Your task to perform on an android device: Add logitech g933 to the cart on walmart Image 0: 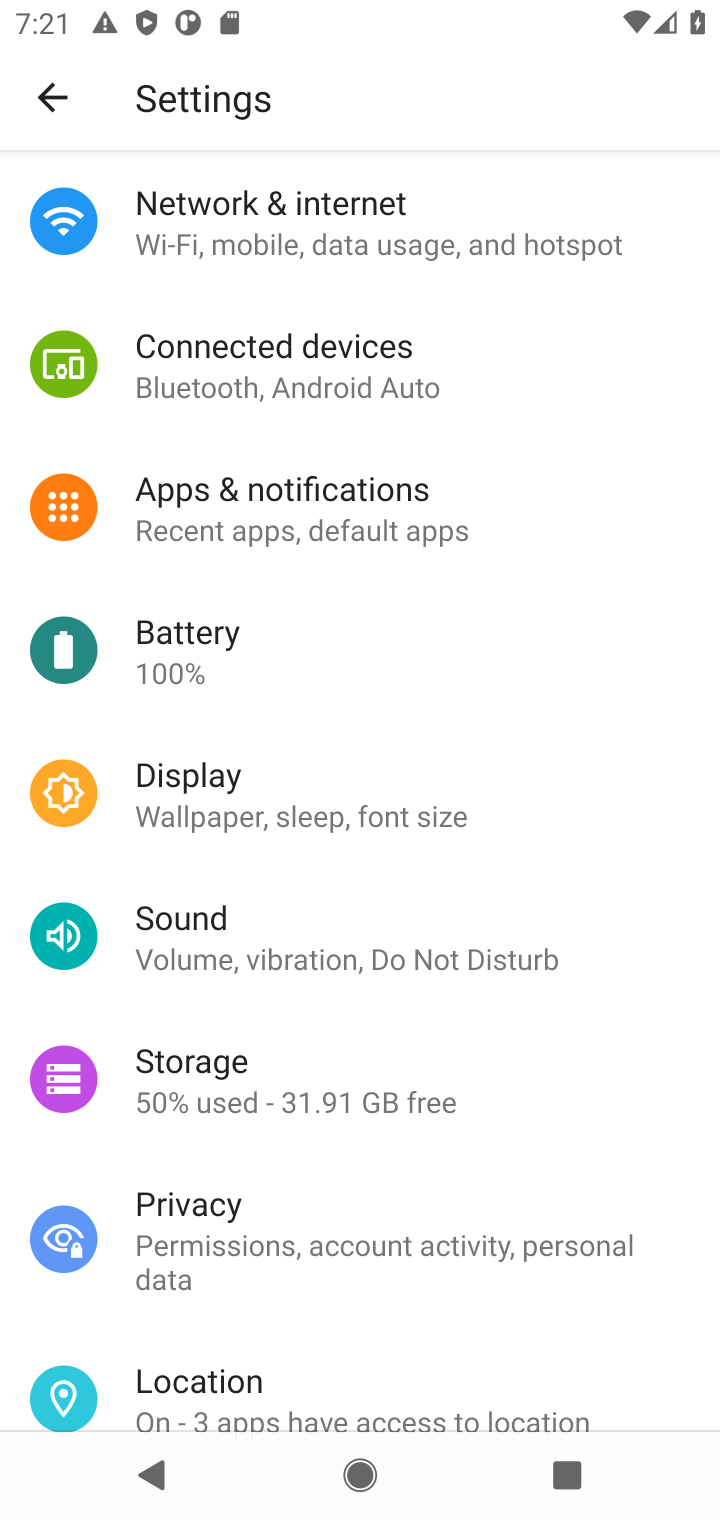
Step 0: press home button
Your task to perform on an android device: Add logitech g933 to the cart on walmart Image 1: 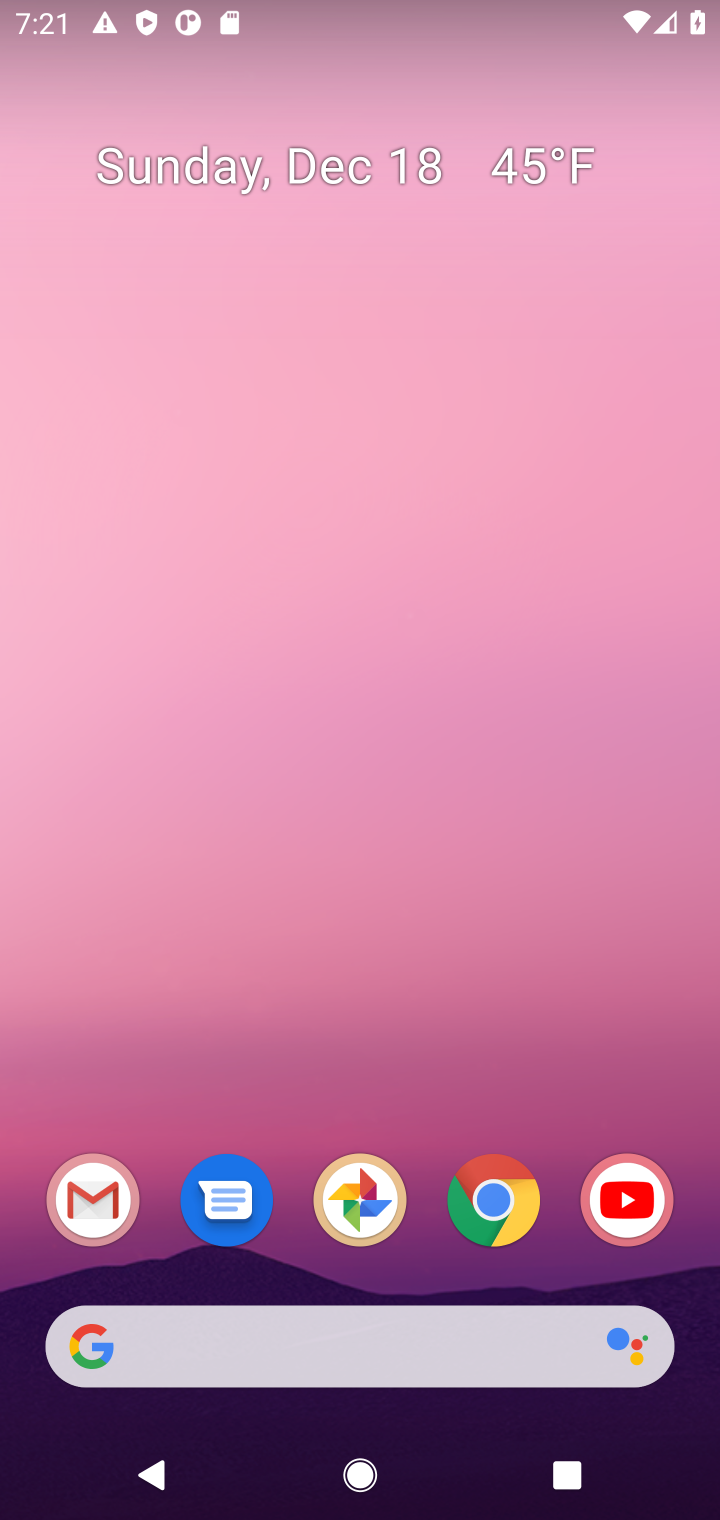
Step 1: click (491, 1229)
Your task to perform on an android device: Add logitech g933 to the cart on walmart Image 2: 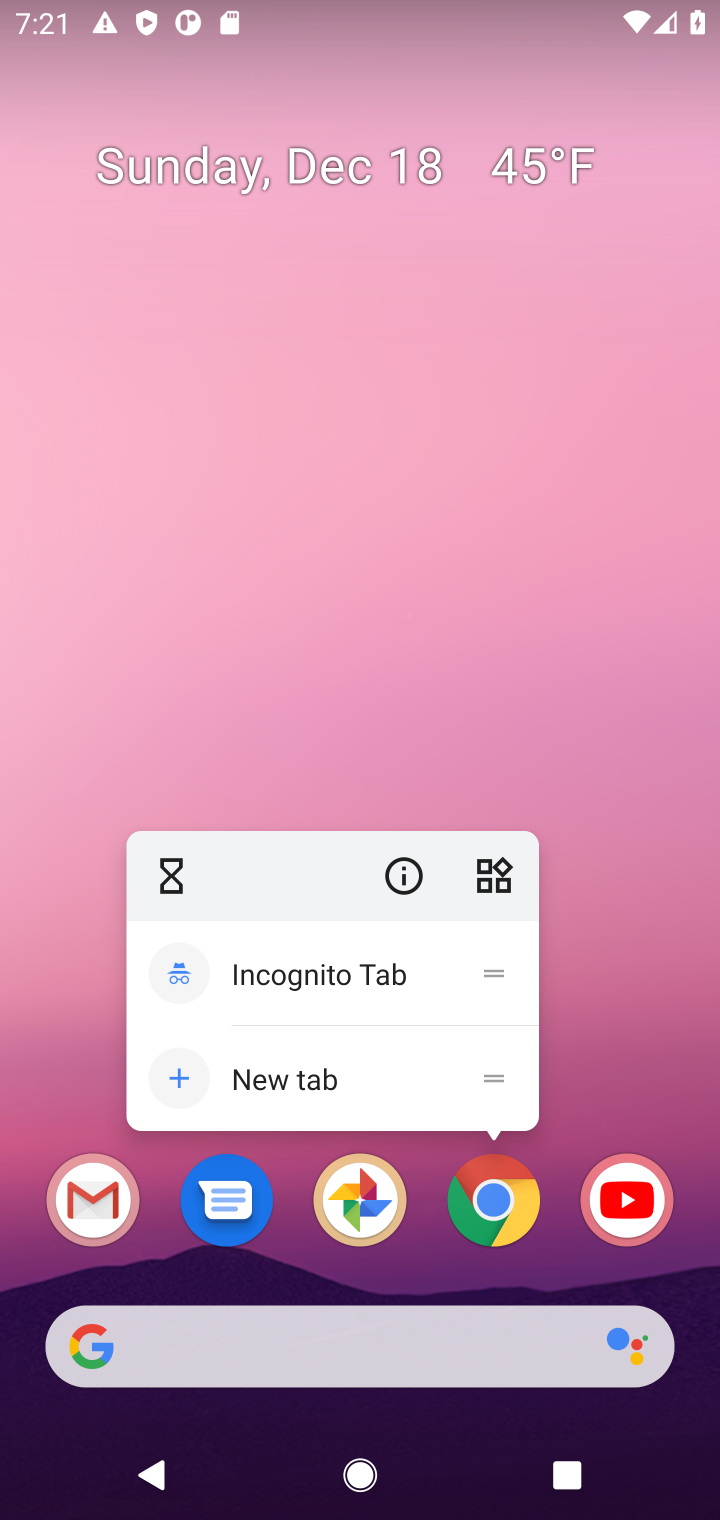
Step 2: click (492, 1214)
Your task to perform on an android device: Add logitech g933 to the cart on walmart Image 3: 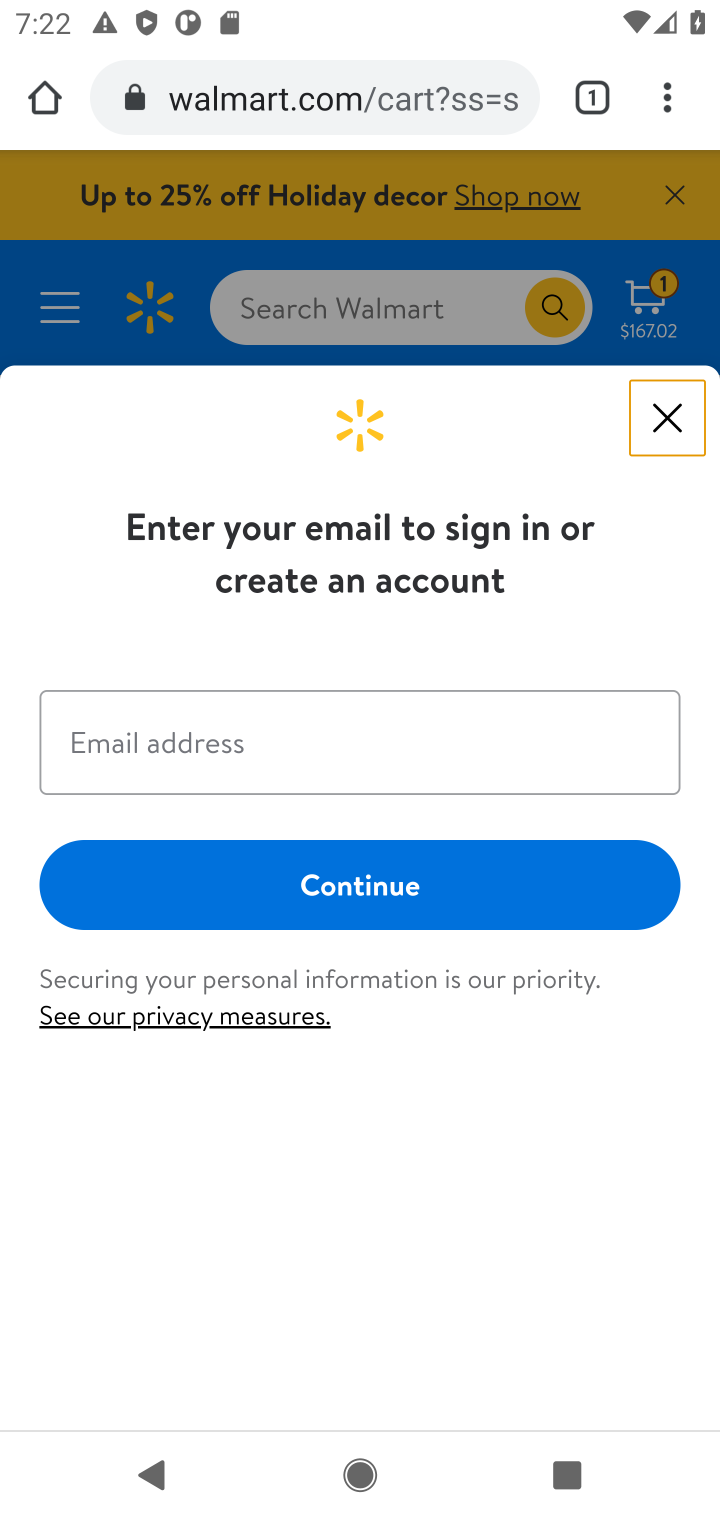
Step 3: click (671, 412)
Your task to perform on an android device: Add logitech g933 to the cart on walmart Image 4: 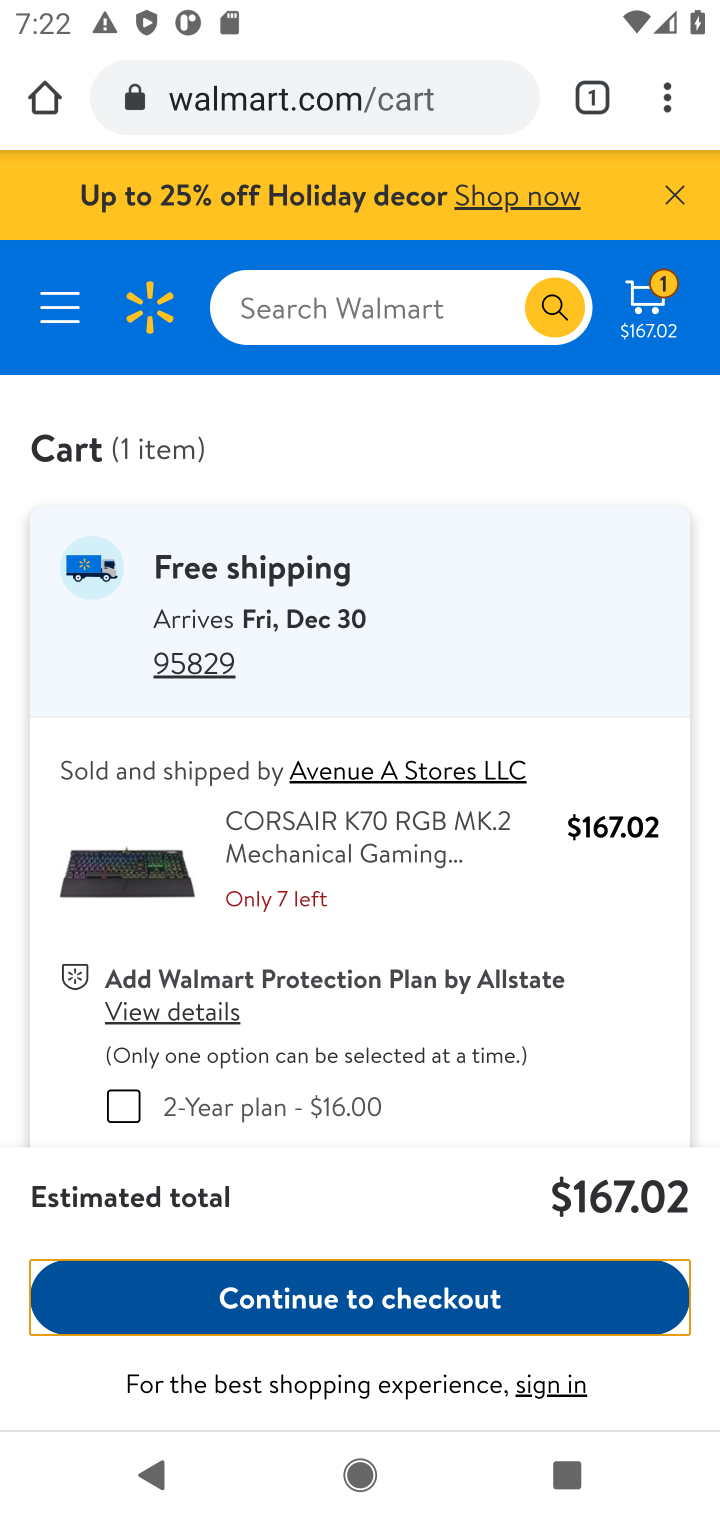
Step 4: click (307, 325)
Your task to perform on an android device: Add logitech g933 to the cart on walmart Image 5: 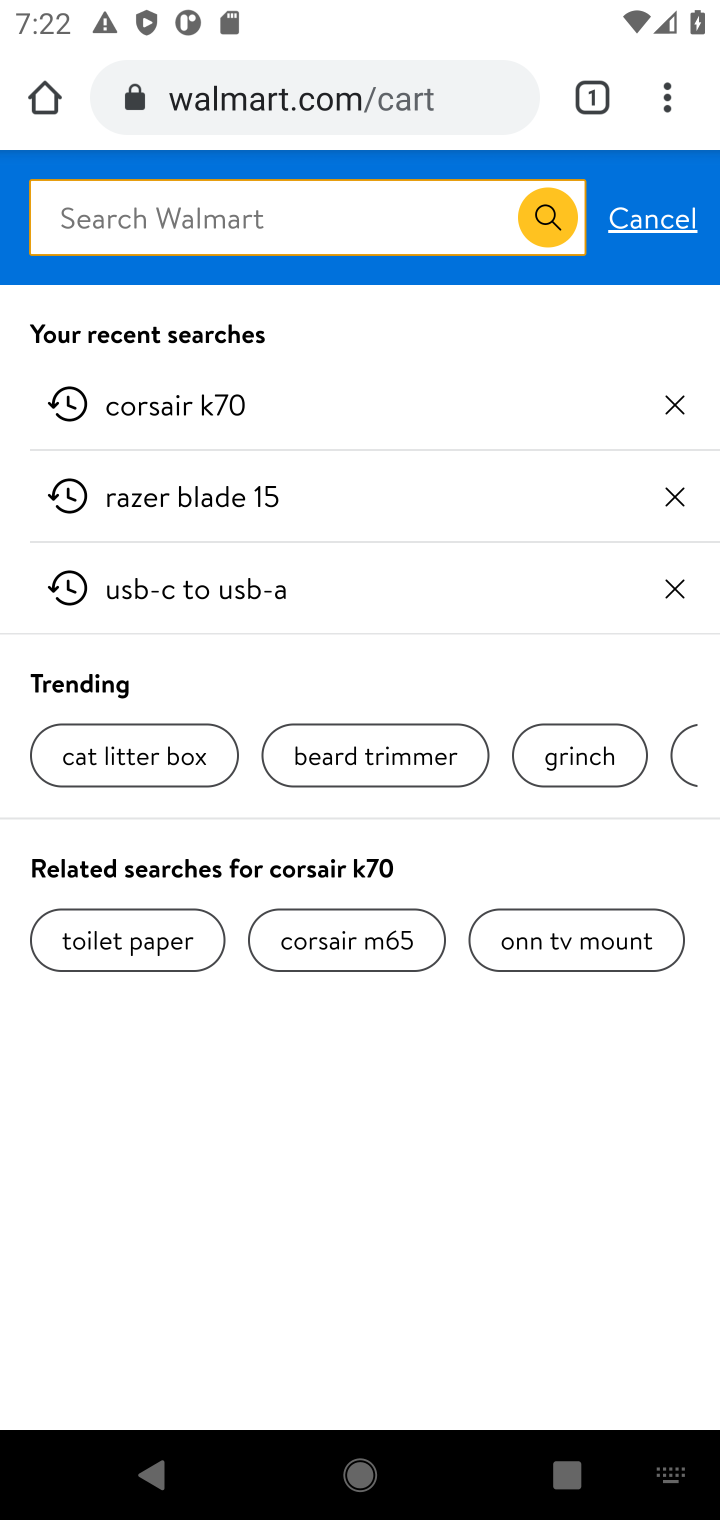
Step 5: type "logitech g933 "
Your task to perform on an android device: Add logitech g933 to the cart on walmart Image 6: 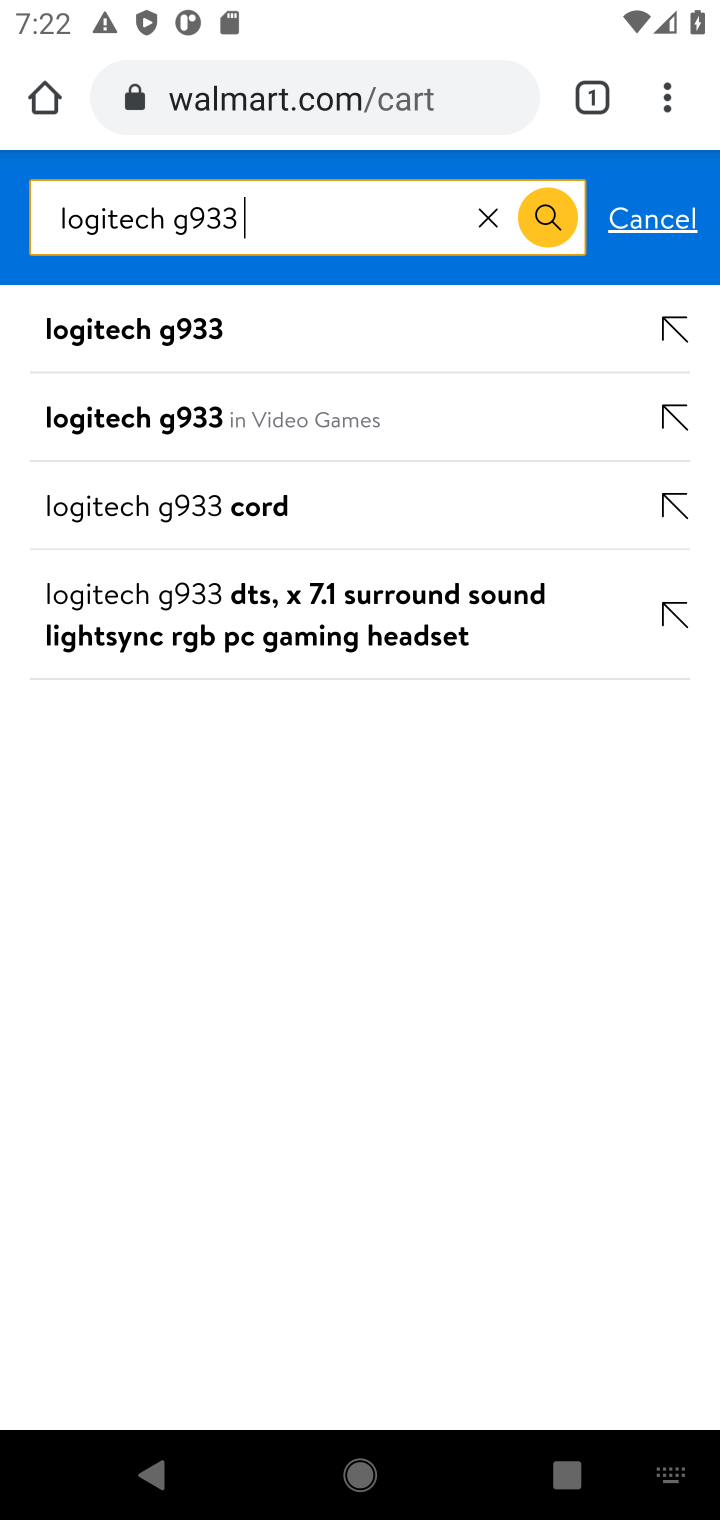
Step 6: click (140, 329)
Your task to perform on an android device: Add logitech g933 to the cart on walmart Image 7: 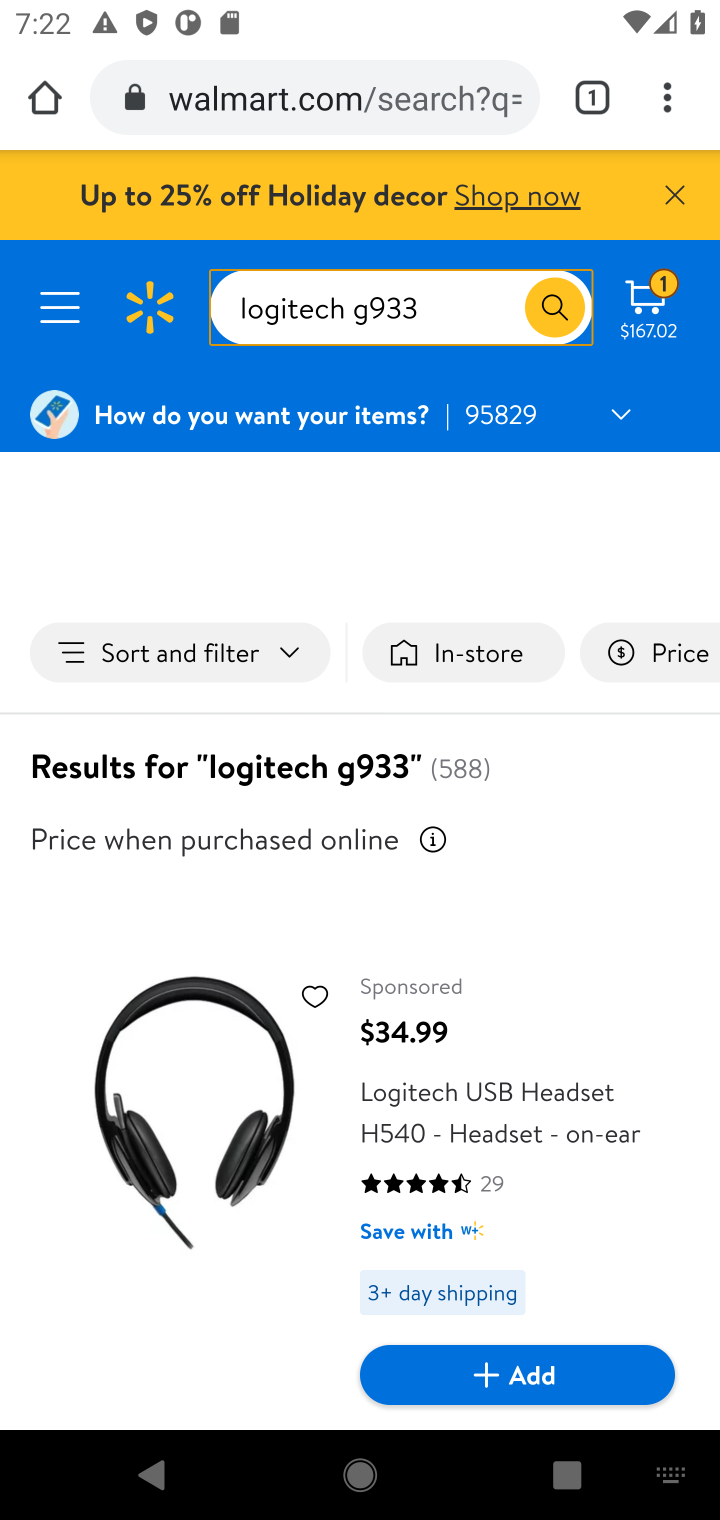
Step 7: drag from (292, 1120) to (304, 478)
Your task to perform on an android device: Add logitech g933 to the cart on walmart Image 8: 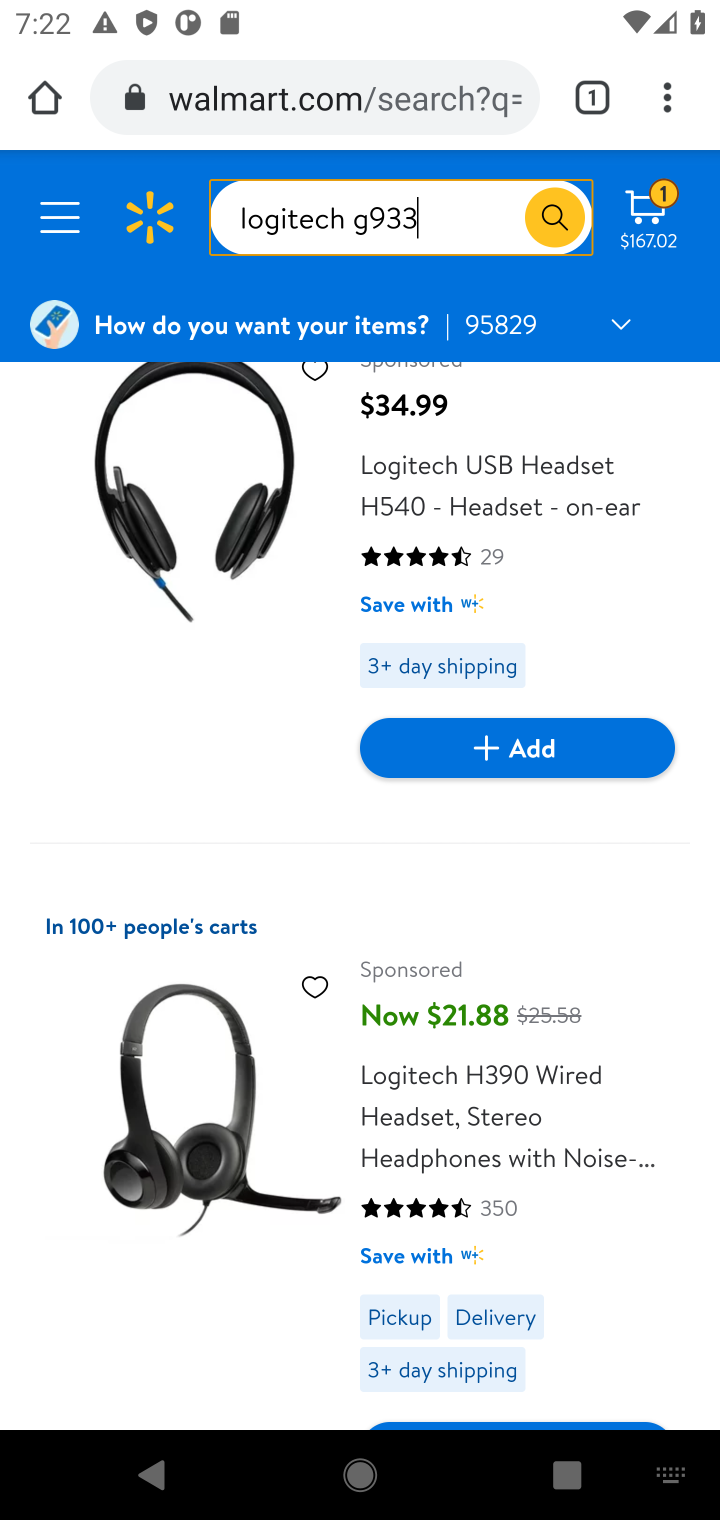
Step 8: drag from (316, 1126) to (316, 659)
Your task to perform on an android device: Add logitech g933 to the cart on walmart Image 9: 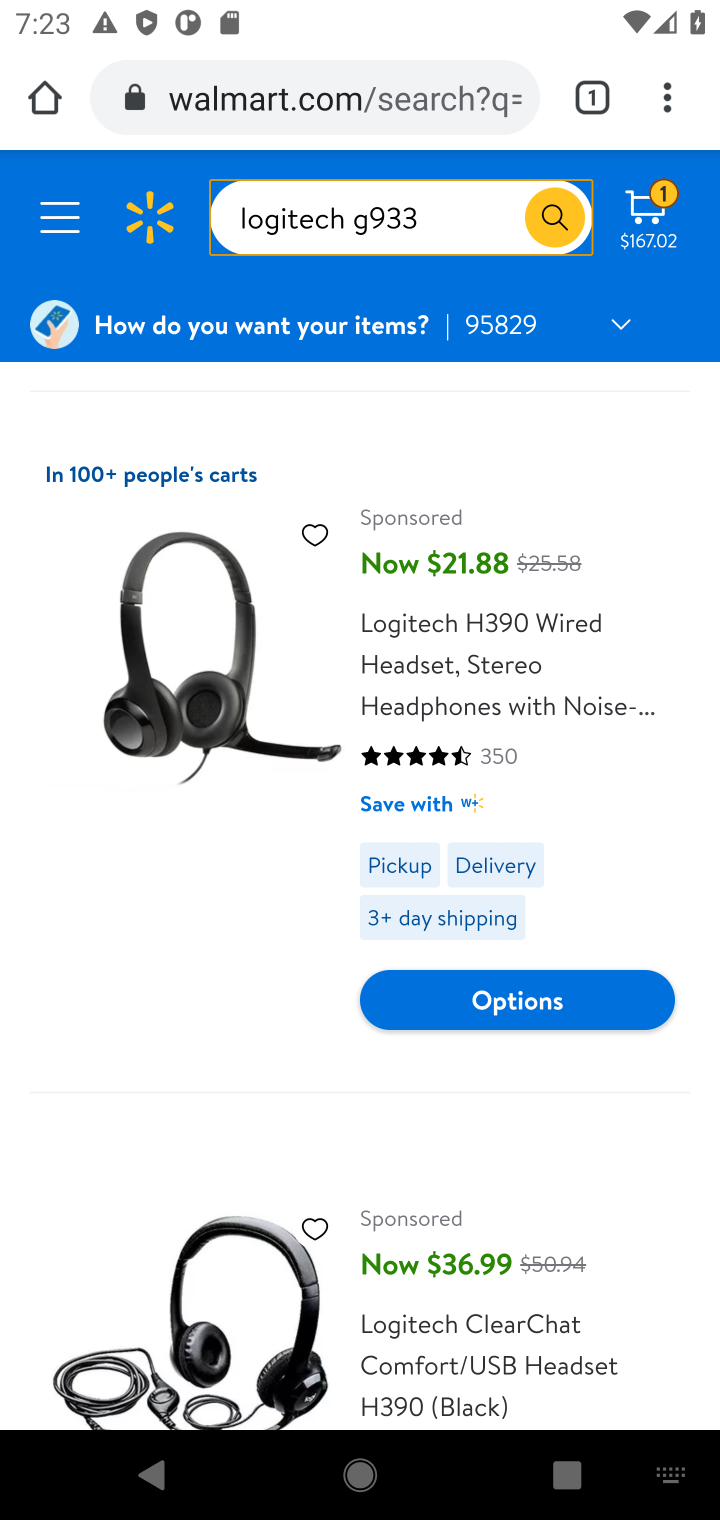
Step 9: drag from (258, 1173) to (272, 533)
Your task to perform on an android device: Add logitech g933 to the cart on walmart Image 10: 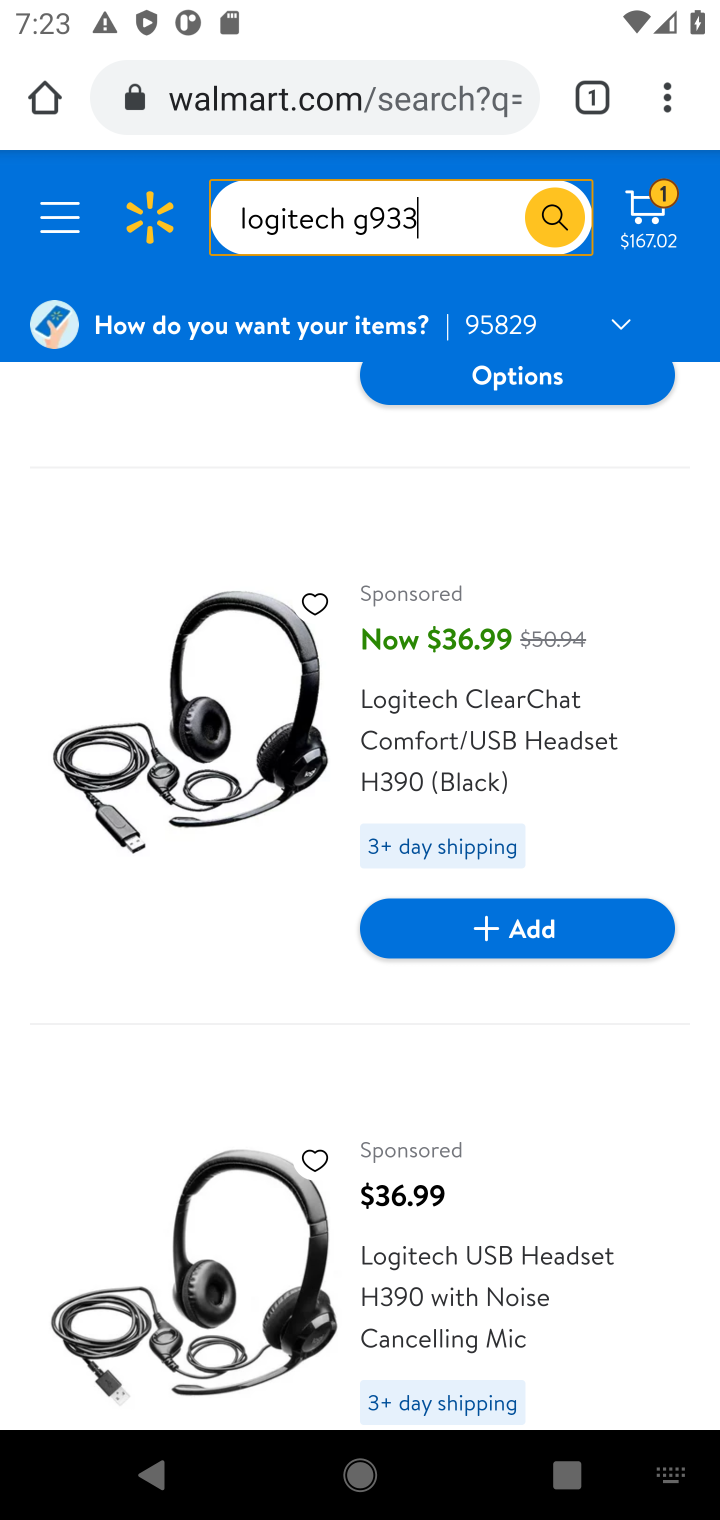
Step 10: drag from (232, 1056) to (207, 563)
Your task to perform on an android device: Add logitech g933 to the cart on walmart Image 11: 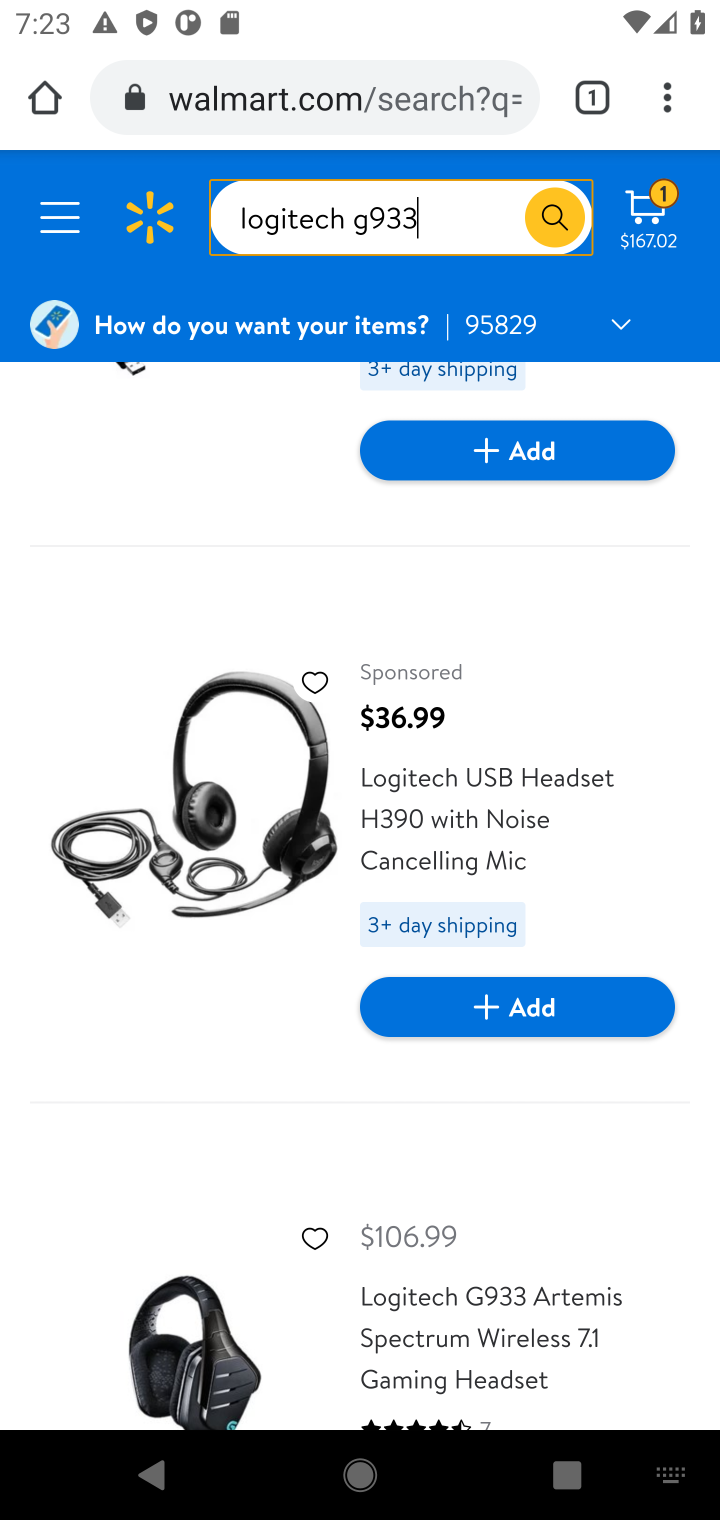
Step 11: drag from (236, 1057) to (223, 591)
Your task to perform on an android device: Add logitech g933 to the cart on walmart Image 12: 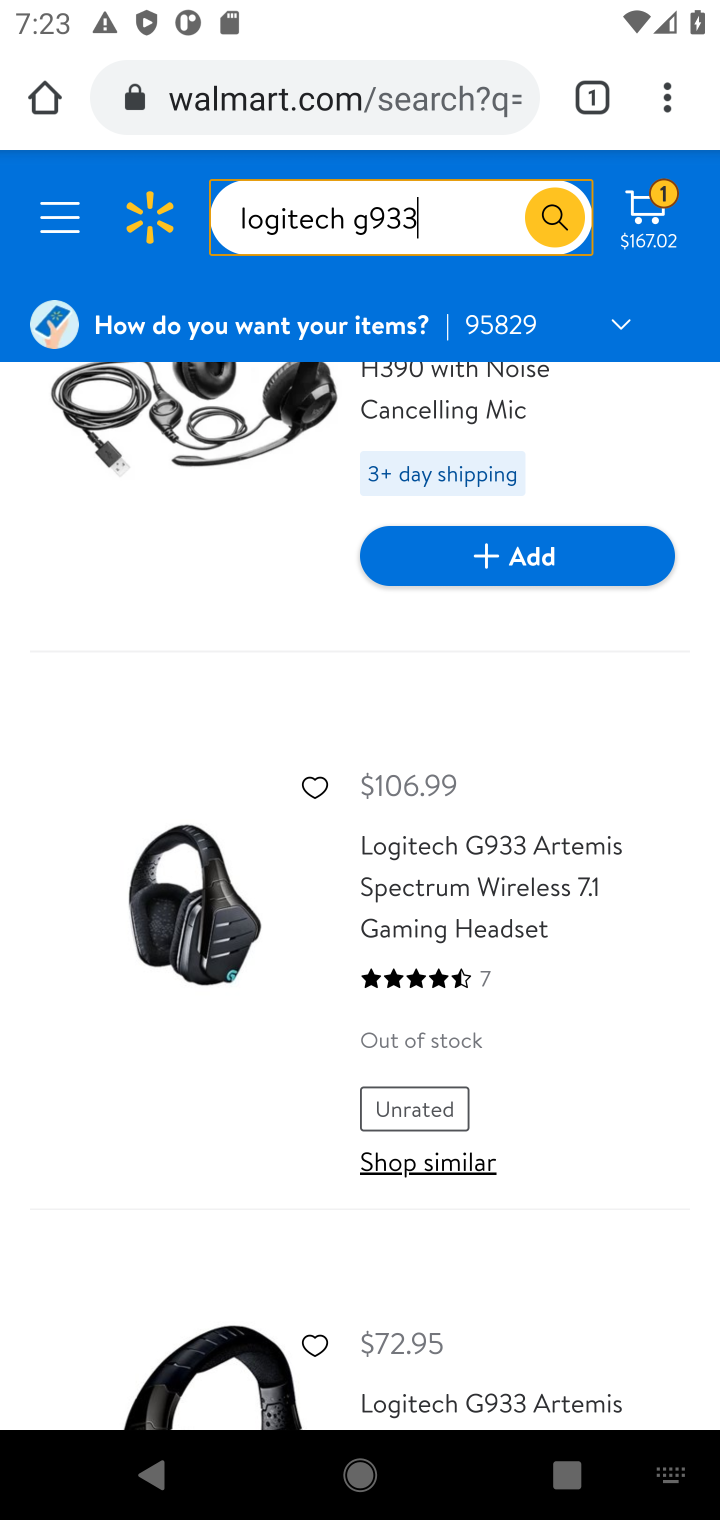
Step 12: drag from (214, 1178) to (262, 475)
Your task to perform on an android device: Add logitech g933 to the cart on walmart Image 13: 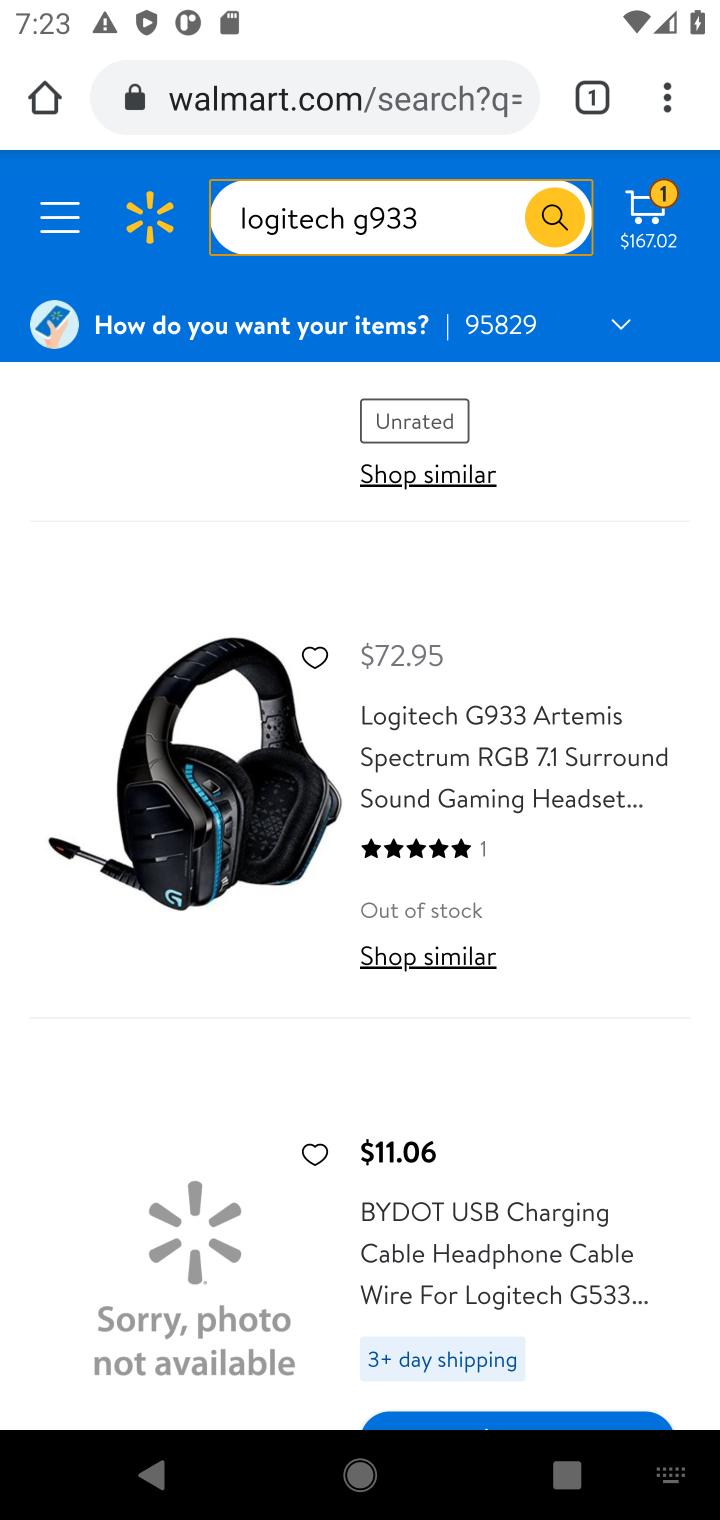
Step 13: drag from (244, 1045) to (254, 506)
Your task to perform on an android device: Add logitech g933 to the cart on walmart Image 14: 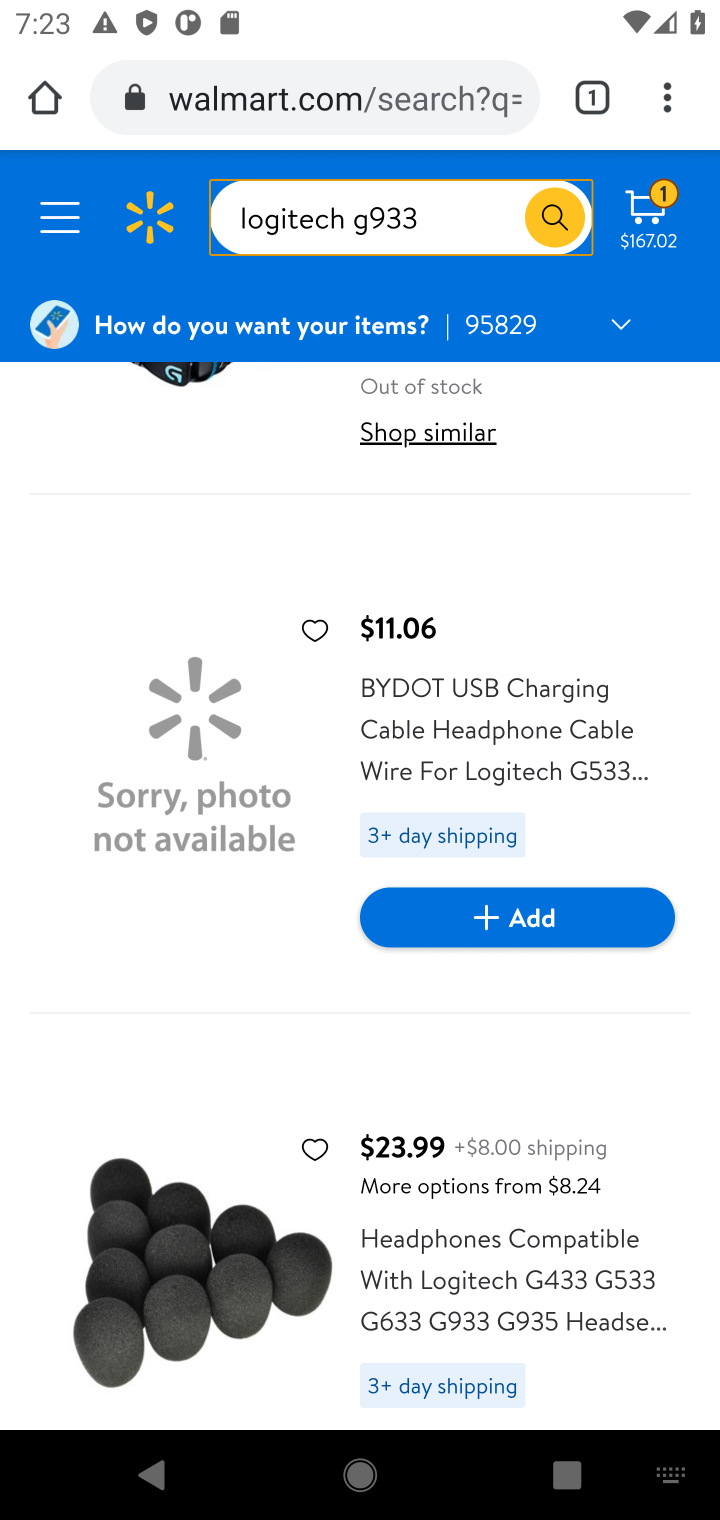
Step 14: drag from (218, 1092) to (224, 524)
Your task to perform on an android device: Add logitech g933 to the cart on walmart Image 15: 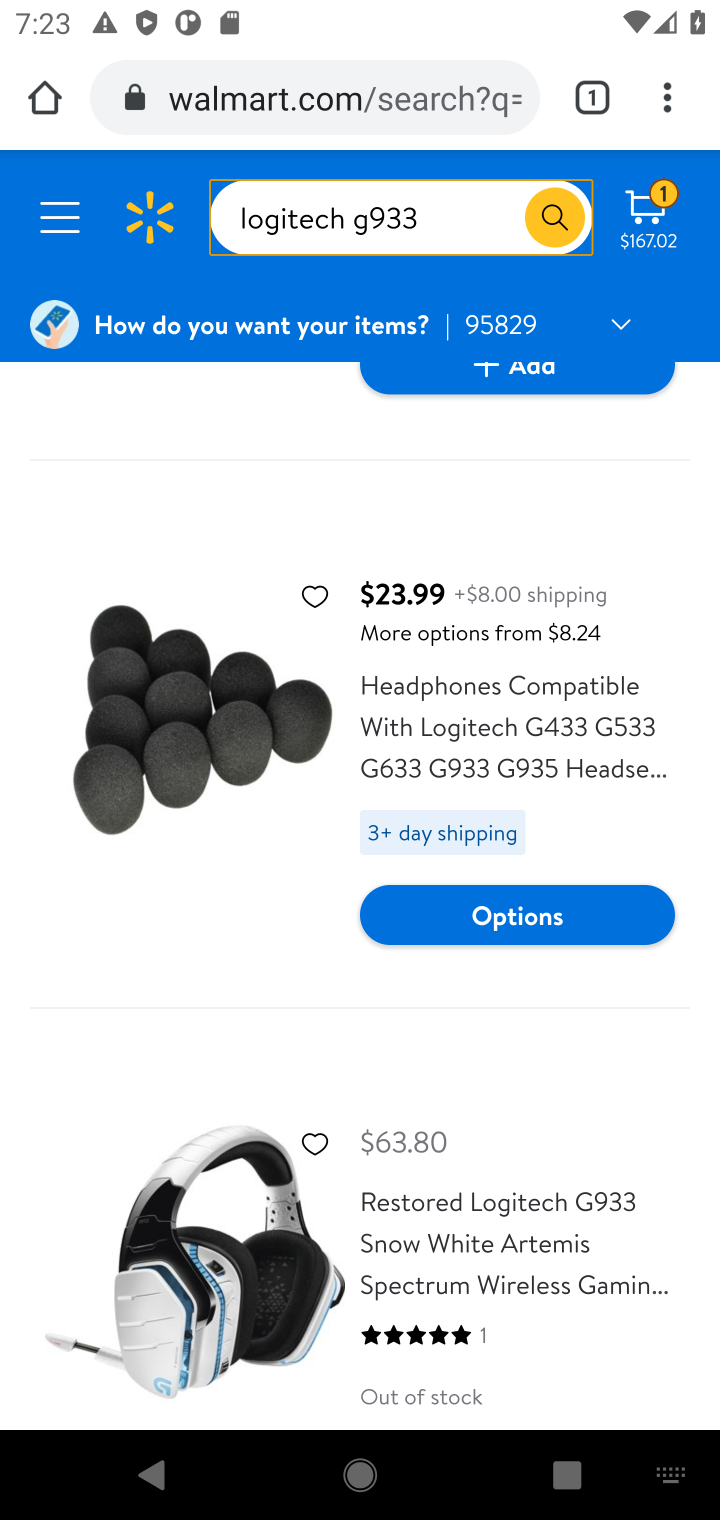
Step 15: click (500, 725)
Your task to perform on an android device: Add logitech g933 to the cart on walmart Image 16: 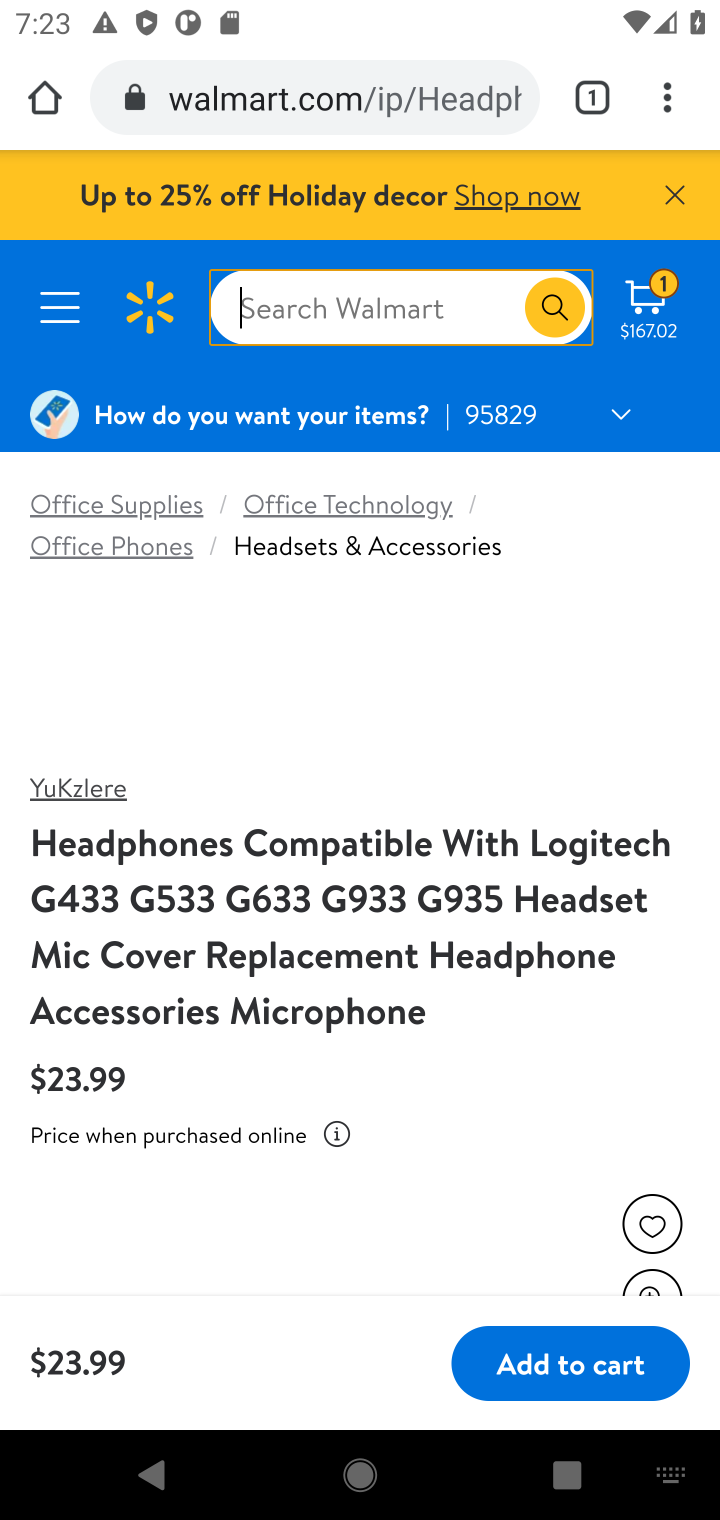
Step 16: click (515, 1362)
Your task to perform on an android device: Add logitech g933 to the cart on walmart Image 17: 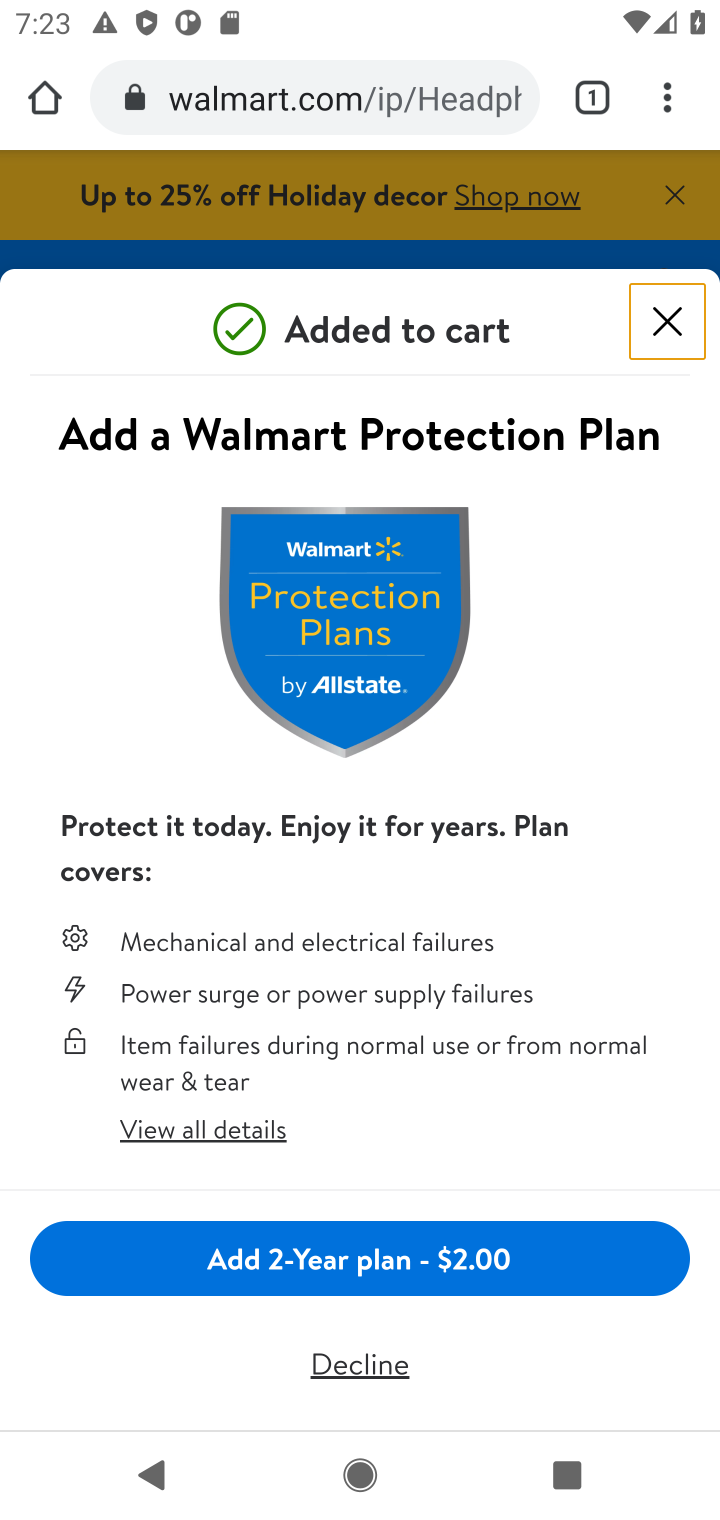
Step 17: task complete